Your task to perform on an android device: Open Chrome and go to the settings page Image 0: 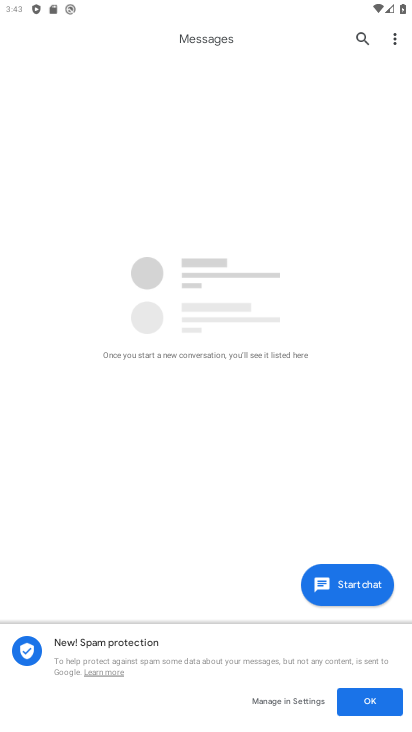
Step 0: press back button
Your task to perform on an android device: Open Chrome and go to the settings page Image 1: 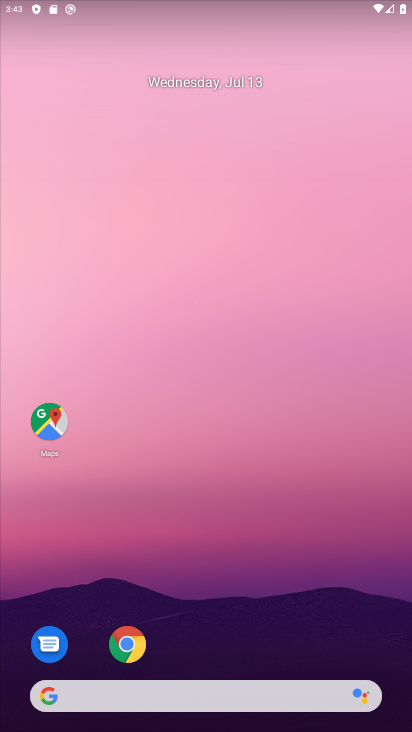
Step 1: click (120, 637)
Your task to perform on an android device: Open Chrome and go to the settings page Image 2: 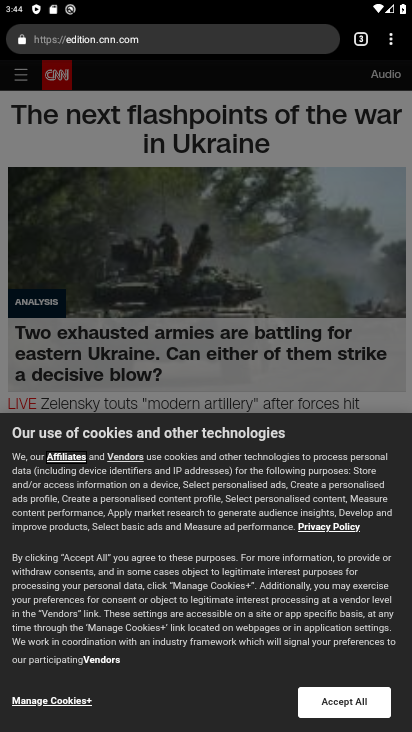
Step 2: task complete